Your task to perform on an android device: turn on bluetooth scan Image 0: 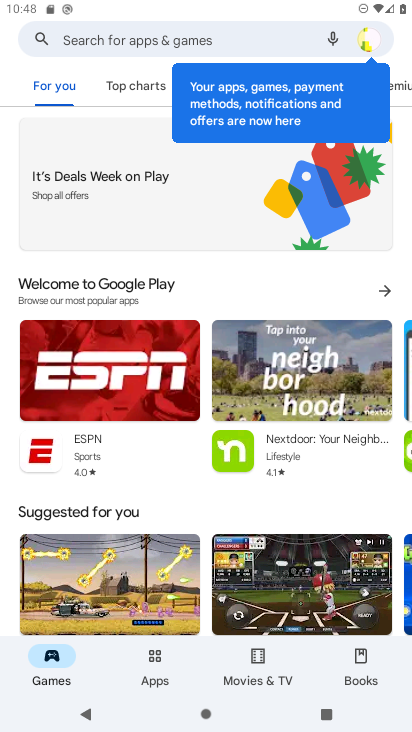
Step 0: press home button
Your task to perform on an android device: turn on bluetooth scan Image 1: 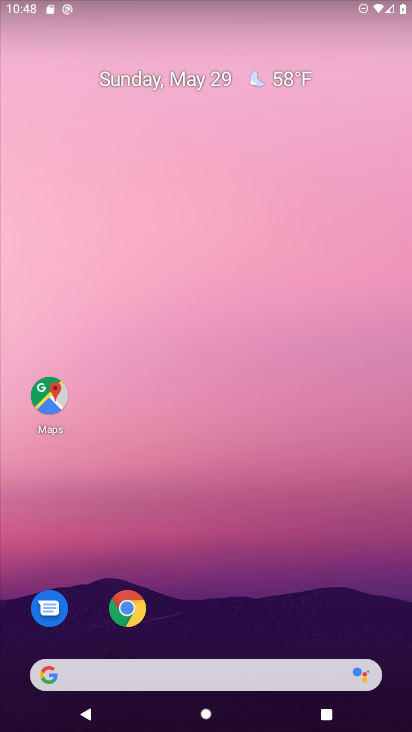
Step 1: drag from (201, 656) to (239, 218)
Your task to perform on an android device: turn on bluetooth scan Image 2: 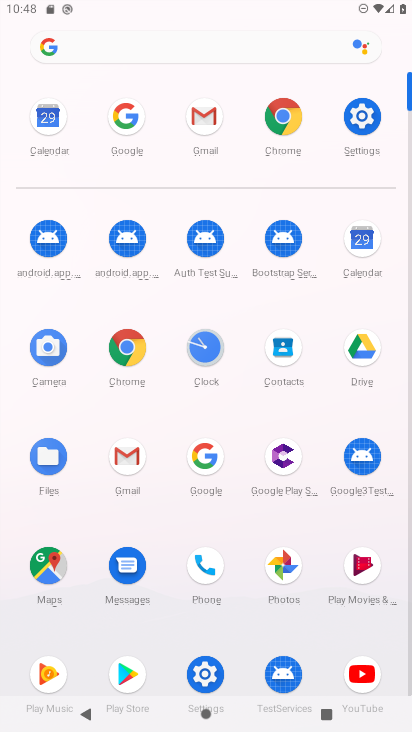
Step 2: click (366, 115)
Your task to perform on an android device: turn on bluetooth scan Image 3: 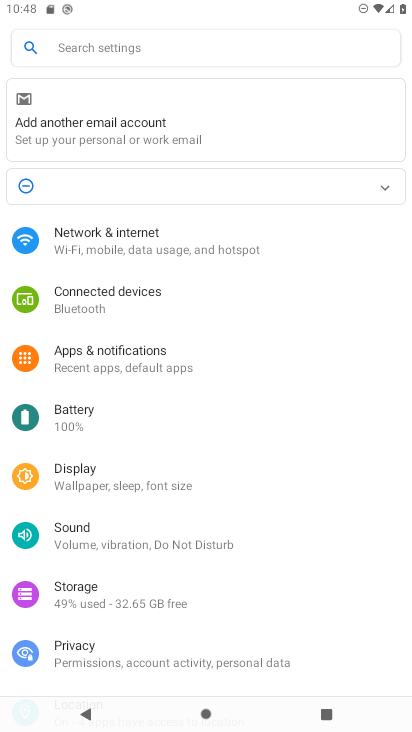
Step 3: drag from (143, 490) to (143, 301)
Your task to perform on an android device: turn on bluetooth scan Image 4: 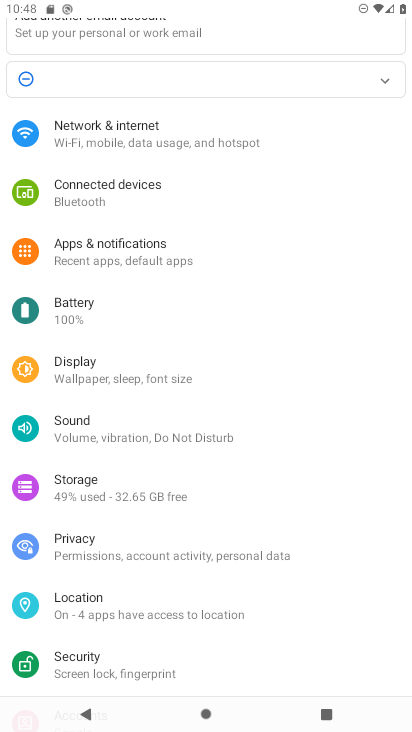
Step 4: click (114, 601)
Your task to perform on an android device: turn on bluetooth scan Image 5: 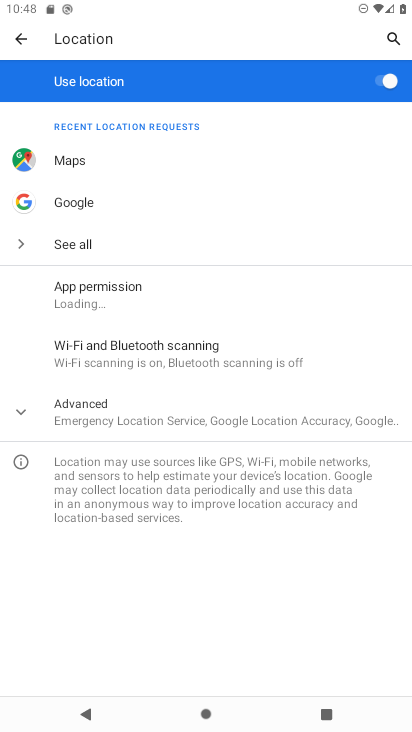
Step 5: click (113, 417)
Your task to perform on an android device: turn on bluetooth scan Image 6: 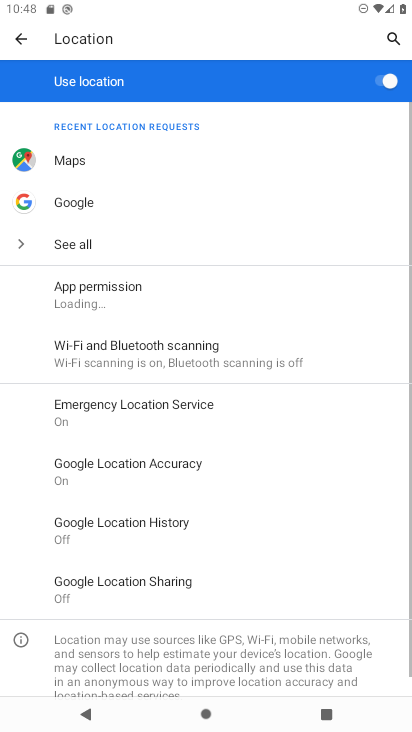
Step 6: click (115, 360)
Your task to perform on an android device: turn on bluetooth scan Image 7: 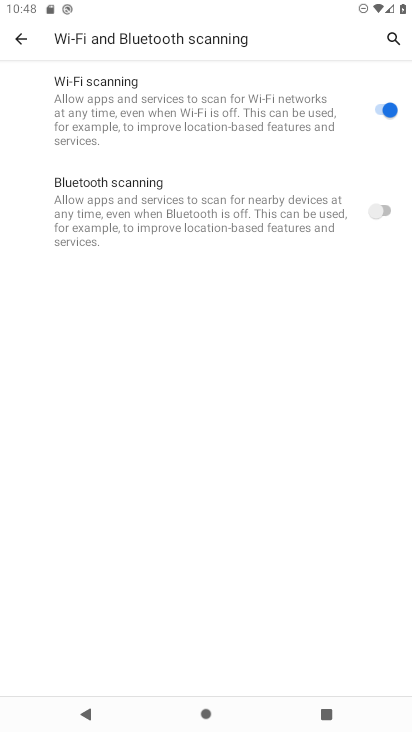
Step 7: click (387, 205)
Your task to perform on an android device: turn on bluetooth scan Image 8: 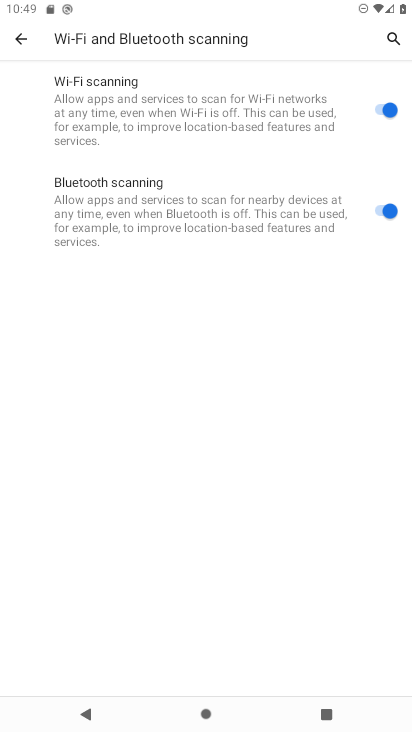
Step 8: task complete